Your task to perform on an android device: Open battery settings Image 0: 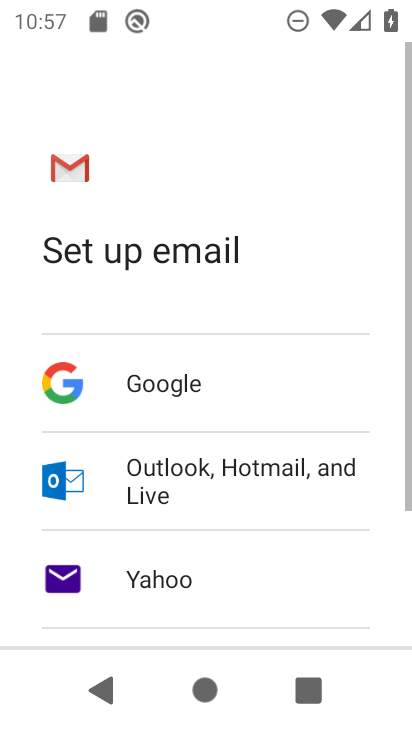
Step 0: press home button
Your task to perform on an android device: Open battery settings Image 1: 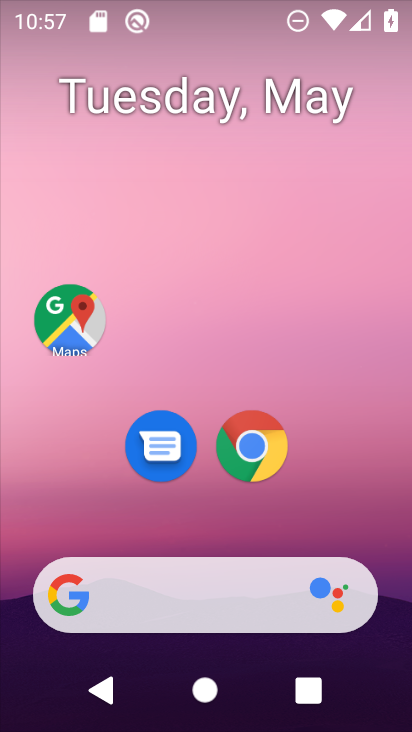
Step 1: drag from (208, 509) to (252, 37)
Your task to perform on an android device: Open battery settings Image 2: 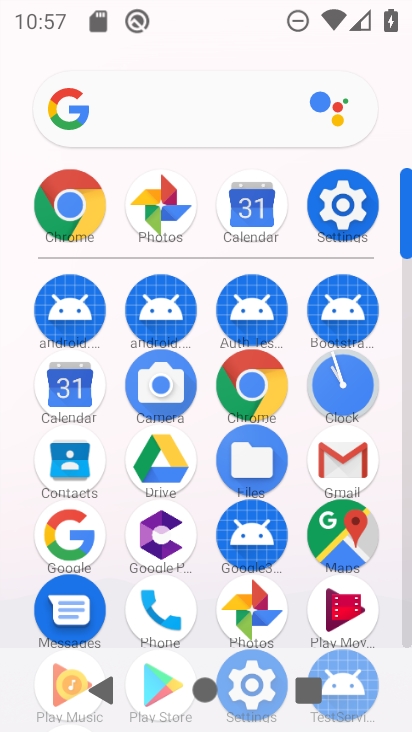
Step 2: click (346, 205)
Your task to perform on an android device: Open battery settings Image 3: 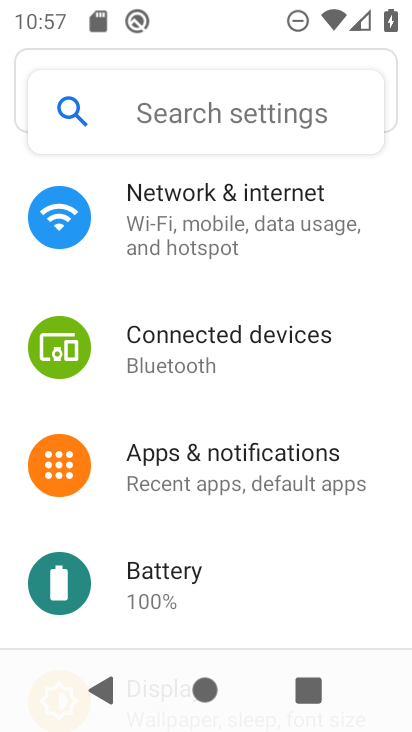
Step 3: click (208, 557)
Your task to perform on an android device: Open battery settings Image 4: 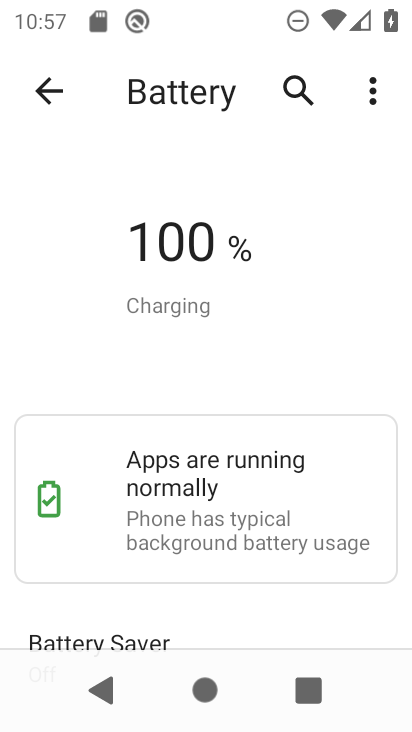
Step 4: task complete